Your task to perform on an android device: Show me the alarms in the clock app Image 0: 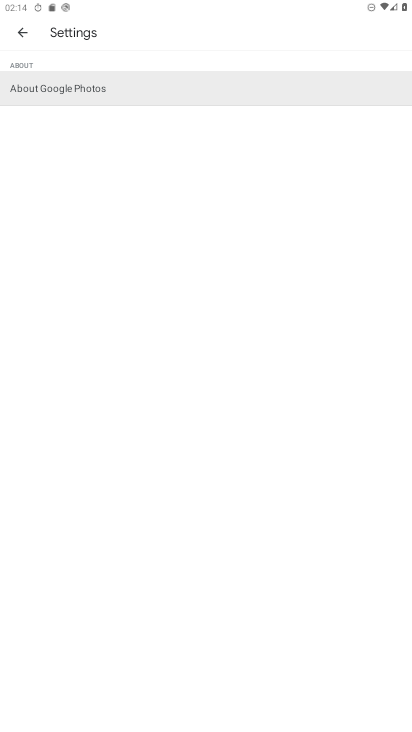
Step 0: press home button
Your task to perform on an android device: Show me the alarms in the clock app Image 1: 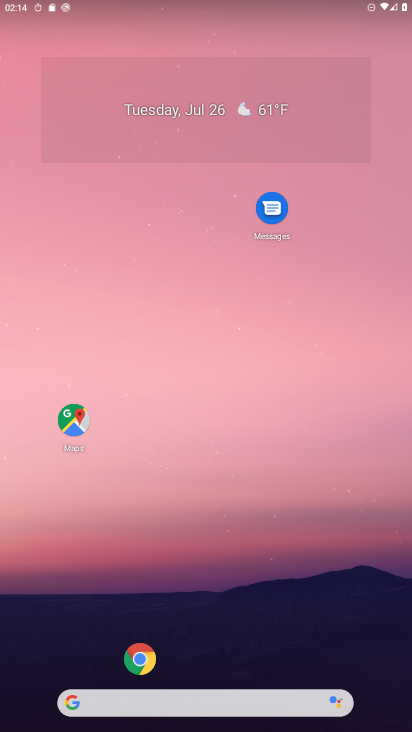
Step 1: drag from (140, 436) to (221, 166)
Your task to perform on an android device: Show me the alarms in the clock app Image 2: 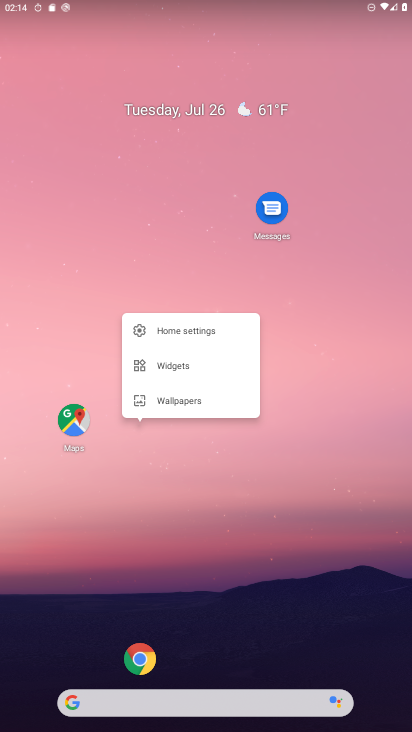
Step 2: drag from (126, 478) to (213, 192)
Your task to perform on an android device: Show me the alarms in the clock app Image 3: 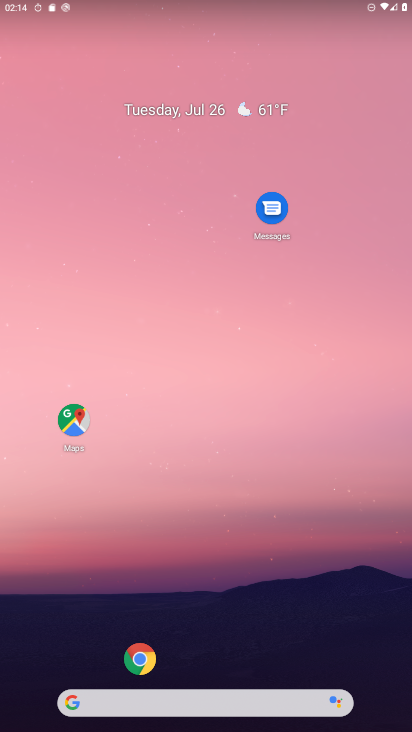
Step 3: drag from (43, 671) to (282, 48)
Your task to perform on an android device: Show me the alarms in the clock app Image 4: 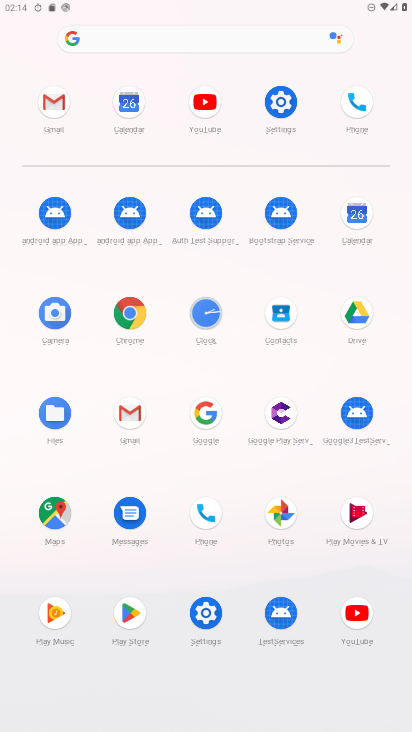
Step 4: click (219, 320)
Your task to perform on an android device: Show me the alarms in the clock app Image 5: 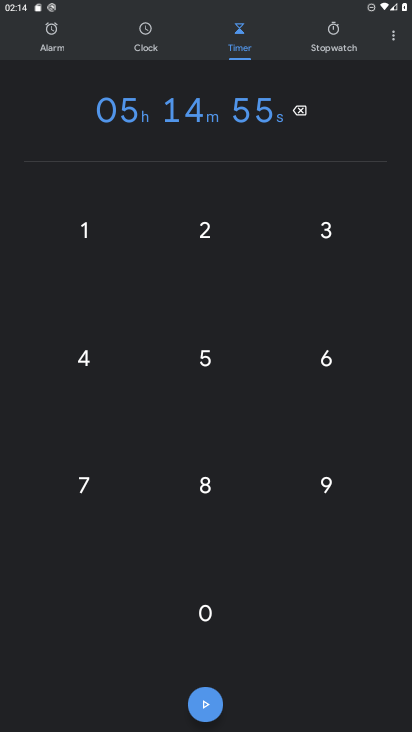
Step 5: click (40, 33)
Your task to perform on an android device: Show me the alarms in the clock app Image 6: 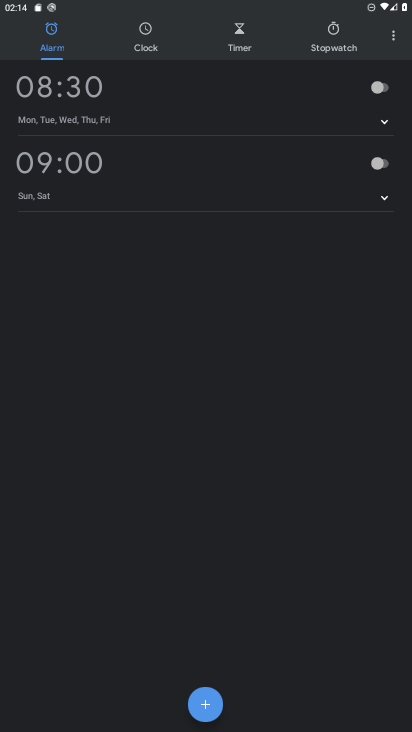
Step 6: task complete